Your task to perform on an android device: change your default location settings in chrome Image 0: 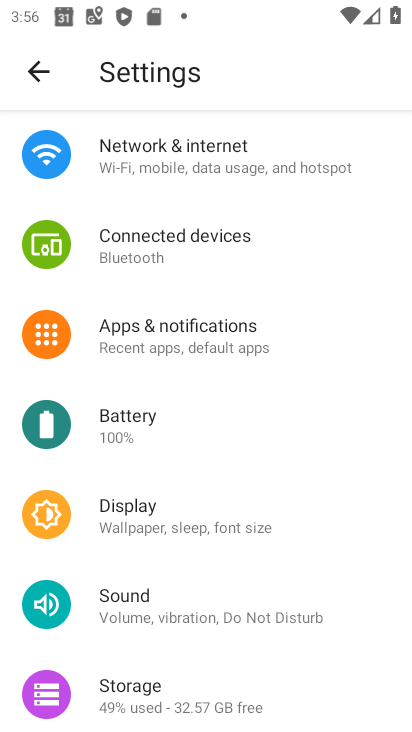
Step 0: press home button
Your task to perform on an android device: change your default location settings in chrome Image 1: 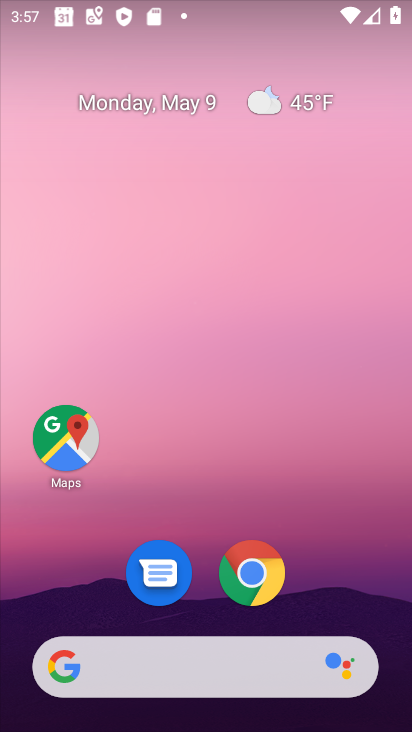
Step 1: click (269, 583)
Your task to perform on an android device: change your default location settings in chrome Image 2: 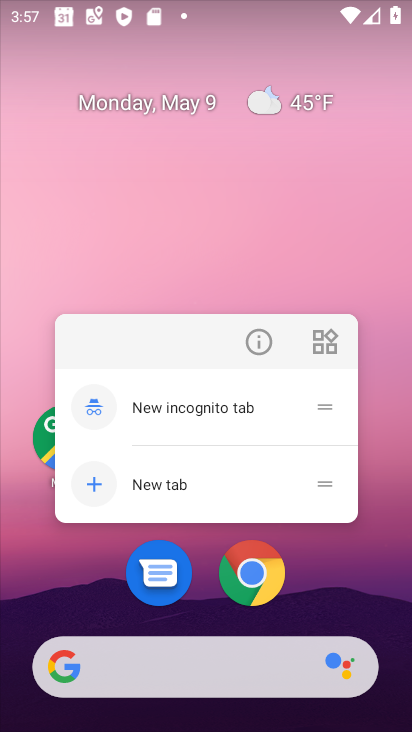
Step 2: click (244, 568)
Your task to perform on an android device: change your default location settings in chrome Image 3: 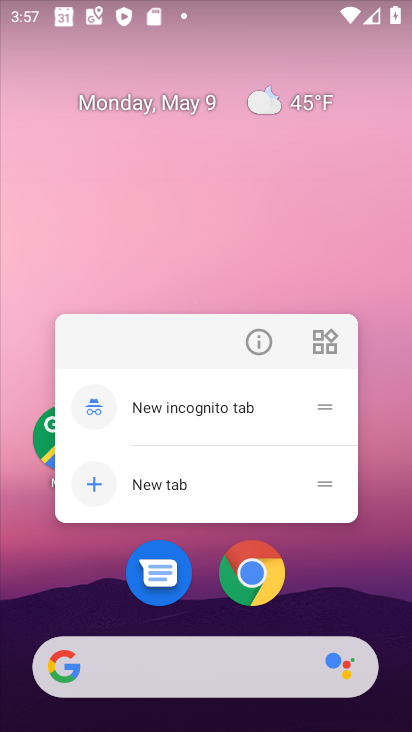
Step 3: click (261, 575)
Your task to perform on an android device: change your default location settings in chrome Image 4: 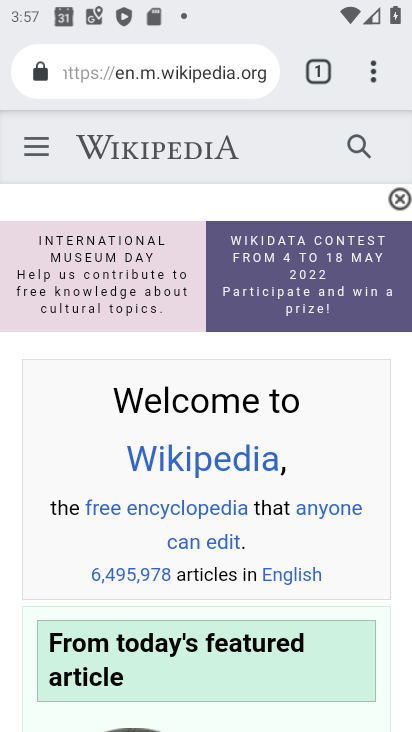
Step 4: click (371, 73)
Your task to perform on an android device: change your default location settings in chrome Image 5: 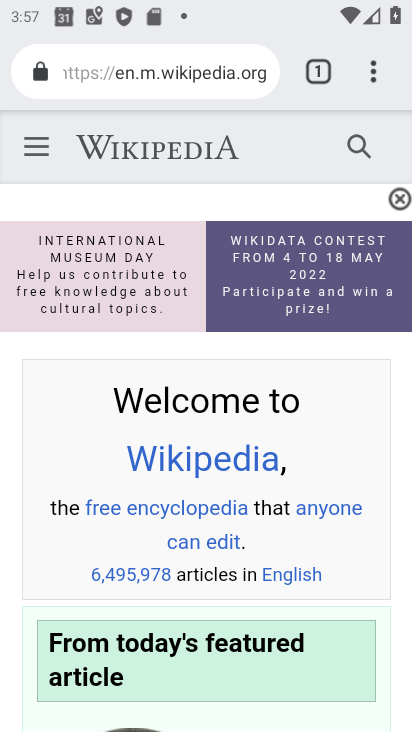
Step 5: drag from (371, 74) to (135, 564)
Your task to perform on an android device: change your default location settings in chrome Image 6: 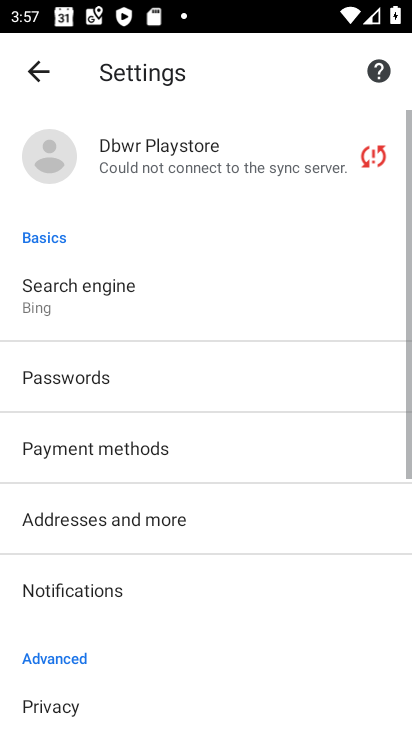
Step 6: drag from (160, 610) to (159, 231)
Your task to perform on an android device: change your default location settings in chrome Image 7: 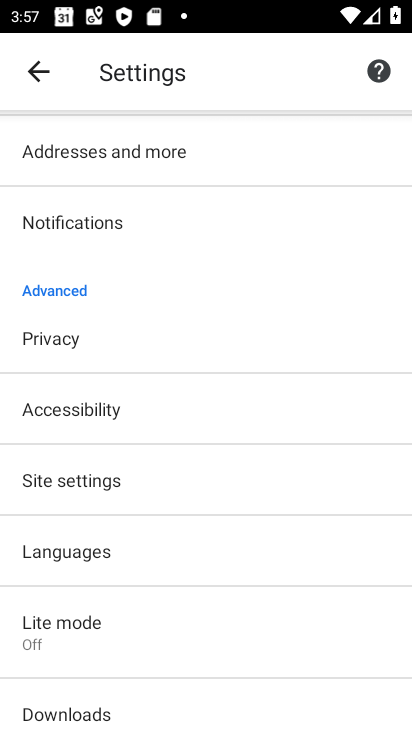
Step 7: click (35, 483)
Your task to perform on an android device: change your default location settings in chrome Image 8: 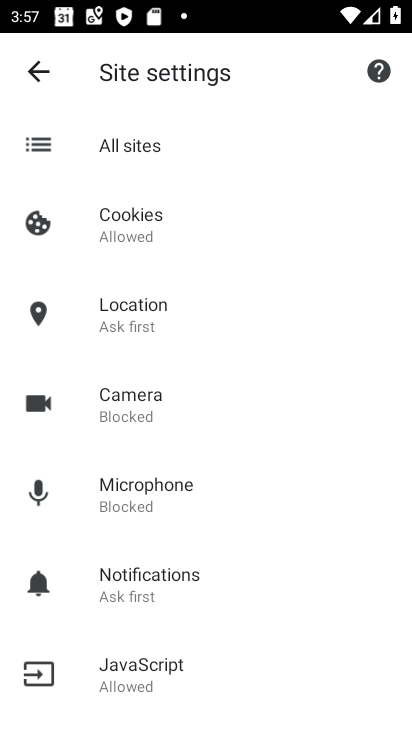
Step 8: click (119, 324)
Your task to perform on an android device: change your default location settings in chrome Image 9: 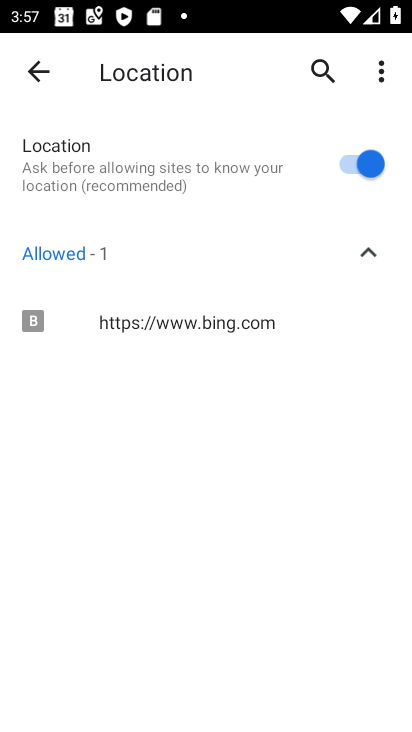
Step 9: click (381, 165)
Your task to perform on an android device: change your default location settings in chrome Image 10: 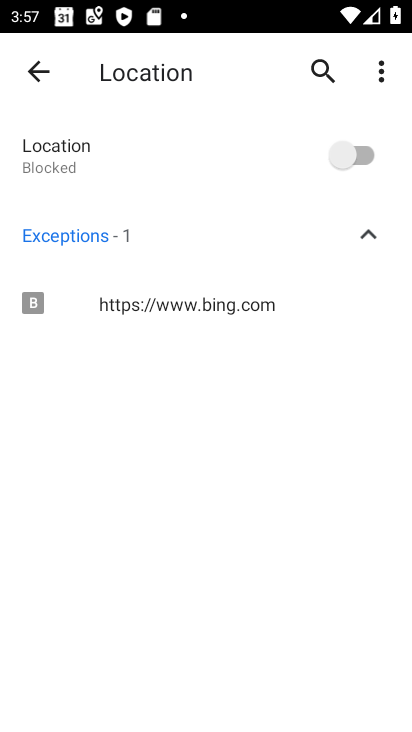
Step 10: task complete